Your task to perform on an android device: toggle wifi Image 0: 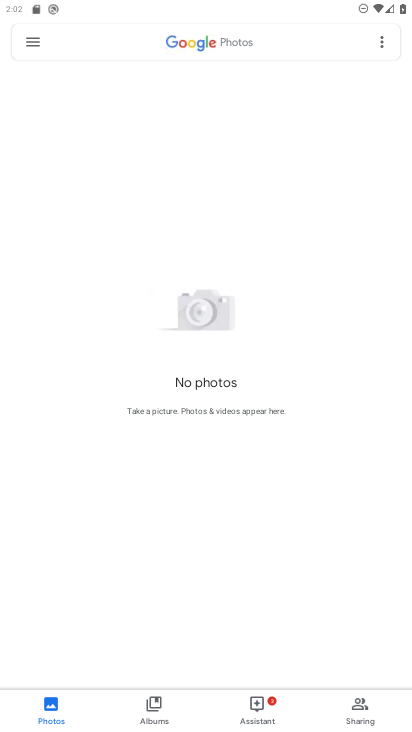
Step 0: press home button
Your task to perform on an android device: toggle wifi Image 1: 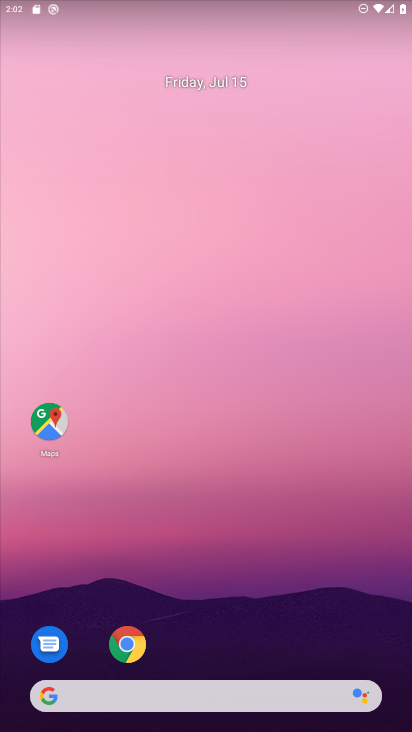
Step 1: drag from (75, 7) to (93, 432)
Your task to perform on an android device: toggle wifi Image 2: 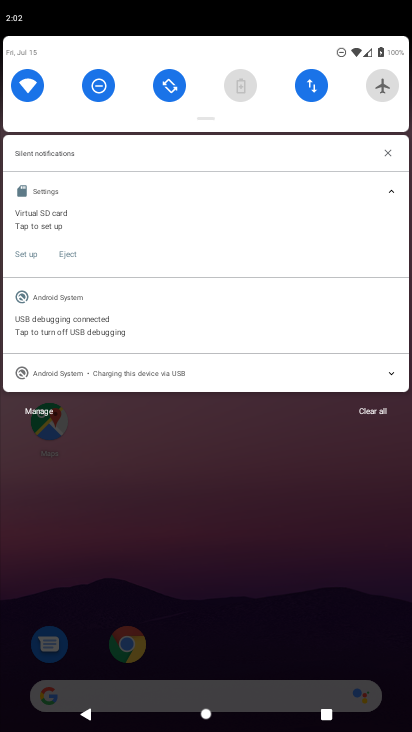
Step 2: click (39, 88)
Your task to perform on an android device: toggle wifi Image 3: 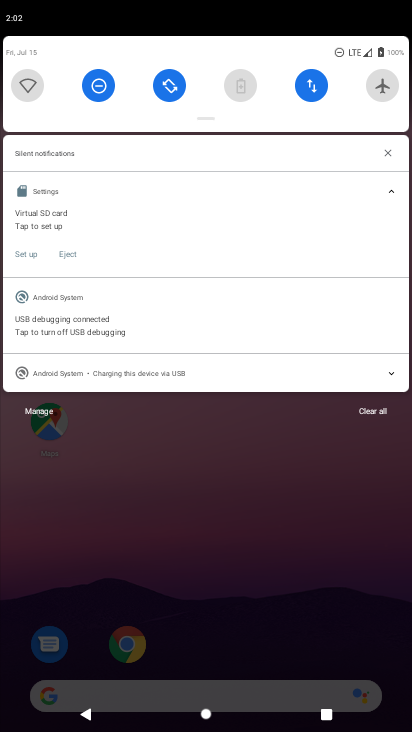
Step 3: task complete